Your task to perform on an android device: Open eBay Image 0: 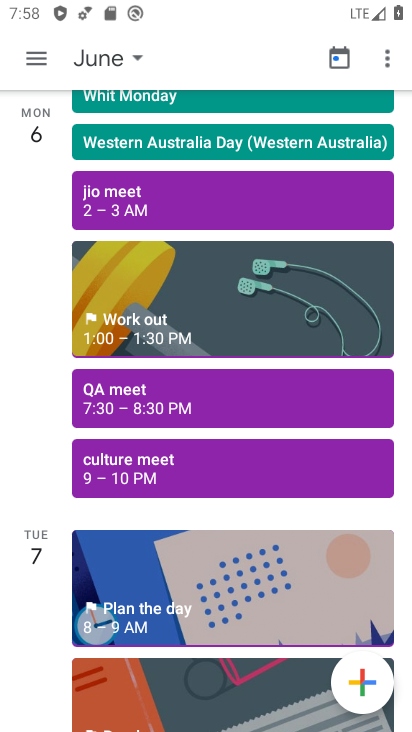
Step 0: press home button
Your task to perform on an android device: Open eBay Image 1: 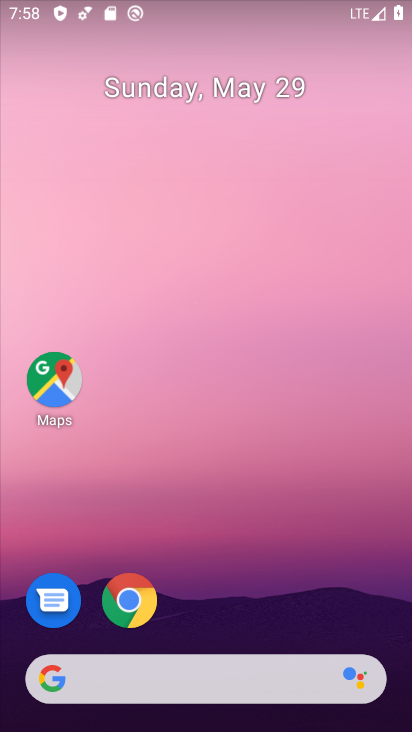
Step 1: drag from (346, 578) to (351, 164)
Your task to perform on an android device: Open eBay Image 2: 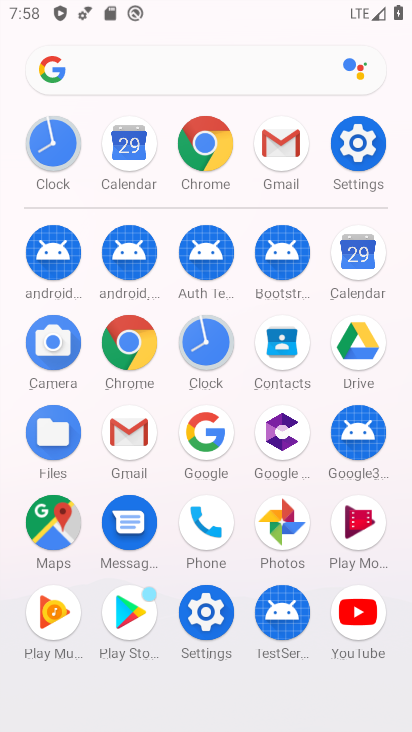
Step 2: click (220, 149)
Your task to perform on an android device: Open eBay Image 3: 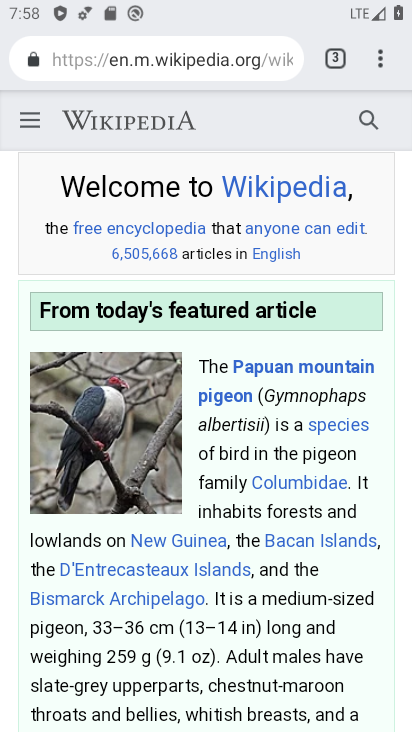
Step 3: click (176, 60)
Your task to perform on an android device: Open eBay Image 4: 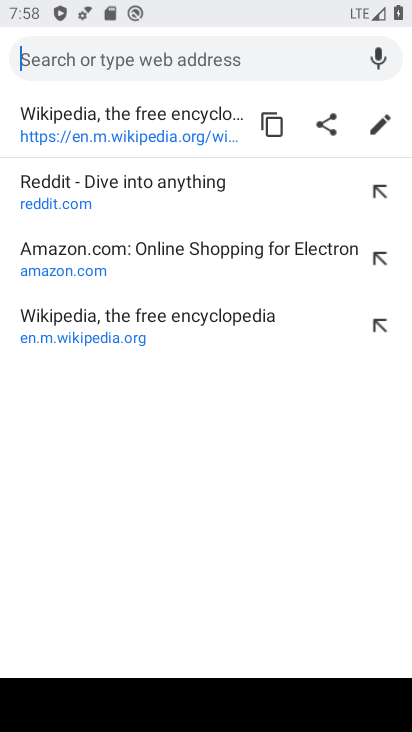
Step 4: type "ebay"
Your task to perform on an android device: Open eBay Image 5: 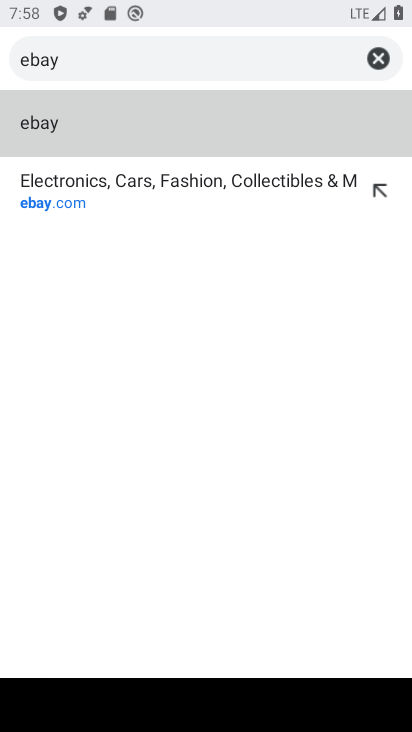
Step 5: click (34, 117)
Your task to perform on an android device: Open eBay Image 6: 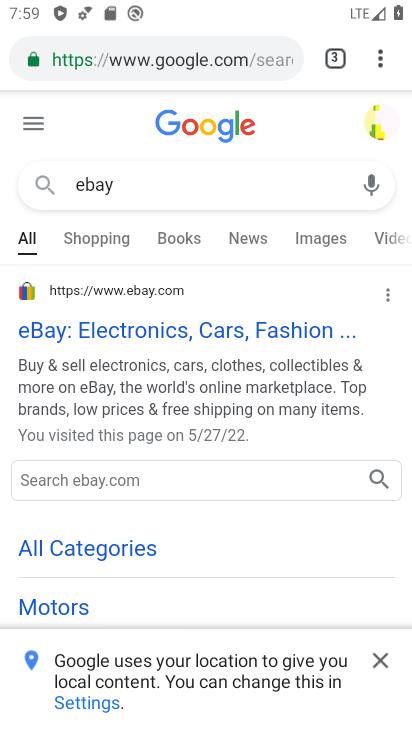
Step 6: click (285, 322)
Your task to perform on an android device: Open eBay Image 7: 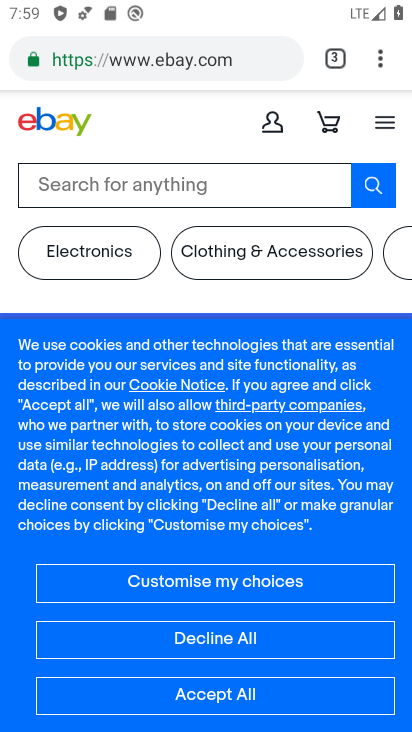
Step 7: task complete